Your task to perform on an android device: uninstall "TextNow: Call + Text Unlimited" Image 0: 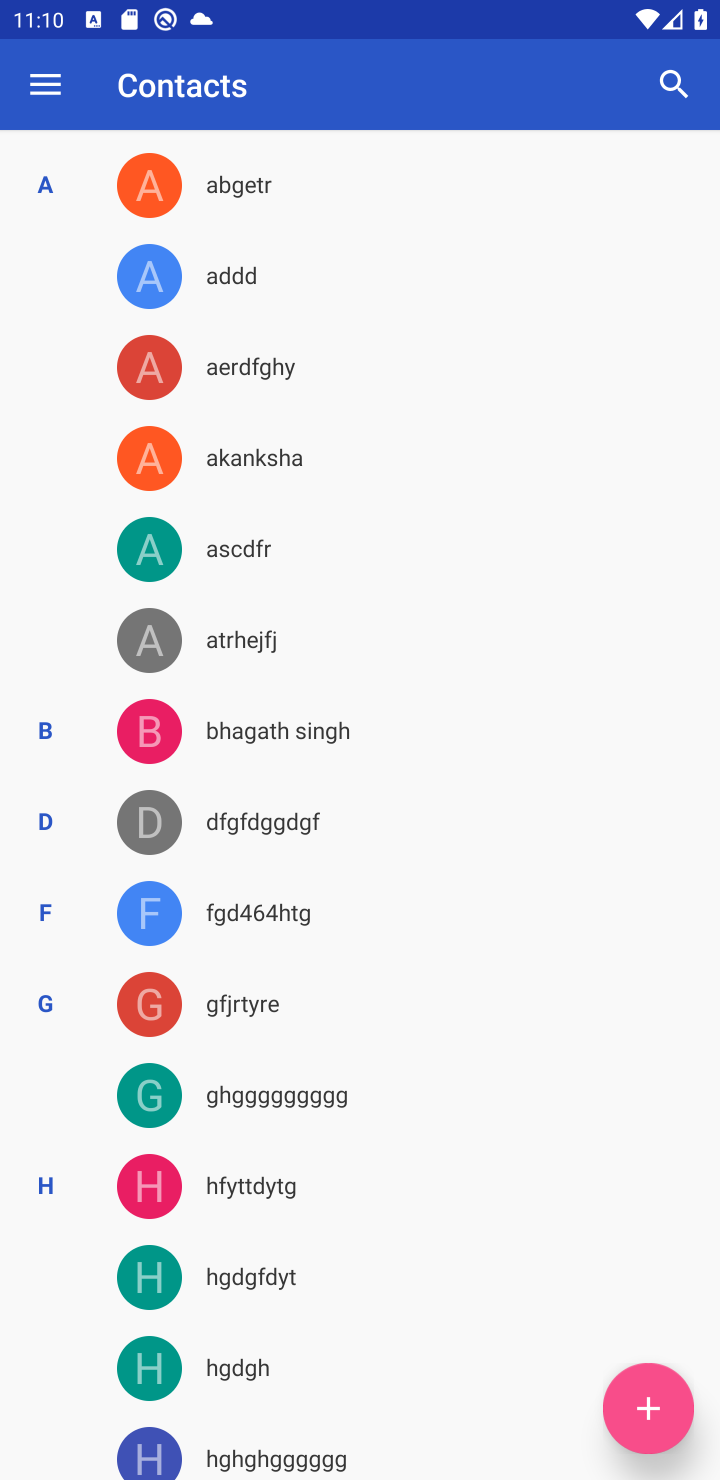
Step 0: press home button
Your task to perform on an android device: uninstall "TextNow: Call + Text Unlimited" Image 1: 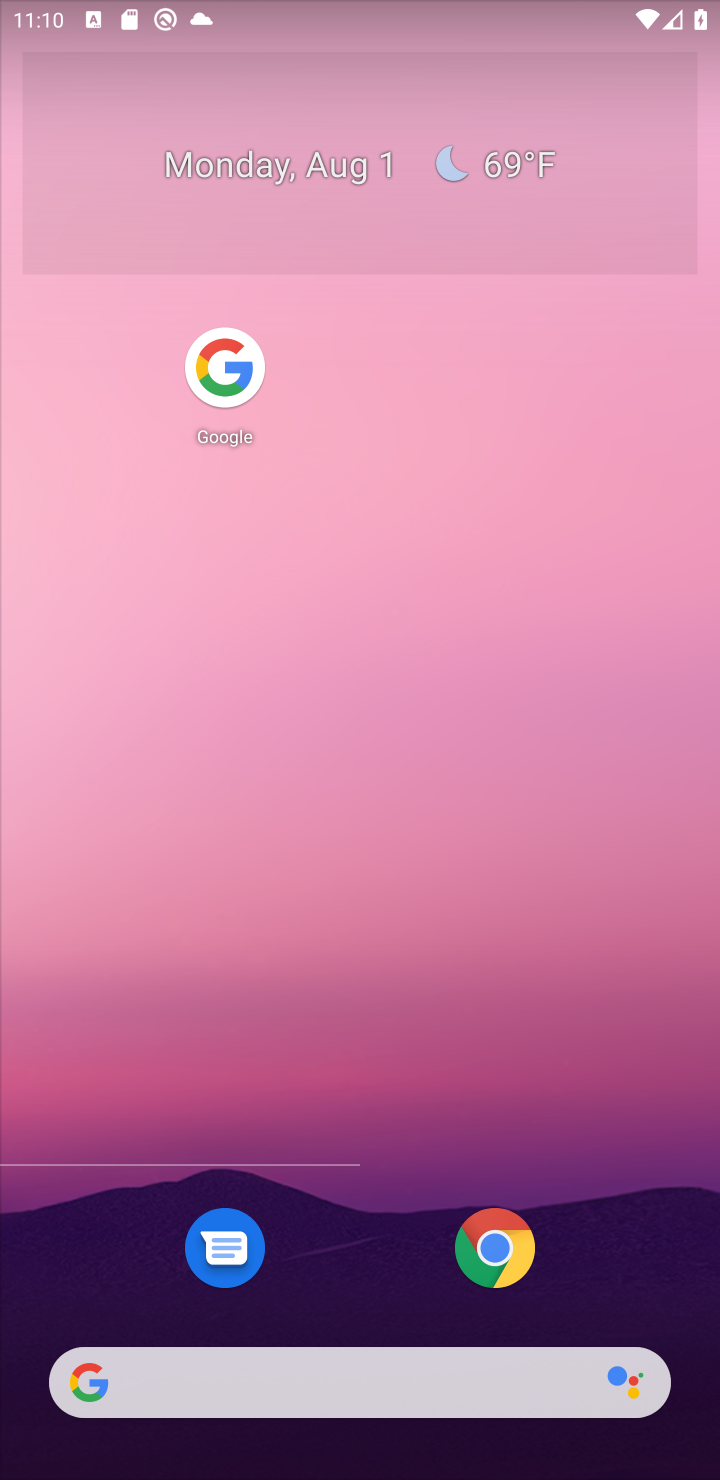
Step 1: drag from (370, 780) to (497, 0)
Your task to perform on an android device: uninstall "TextNow: Call + Text Unlimited" Image 2: 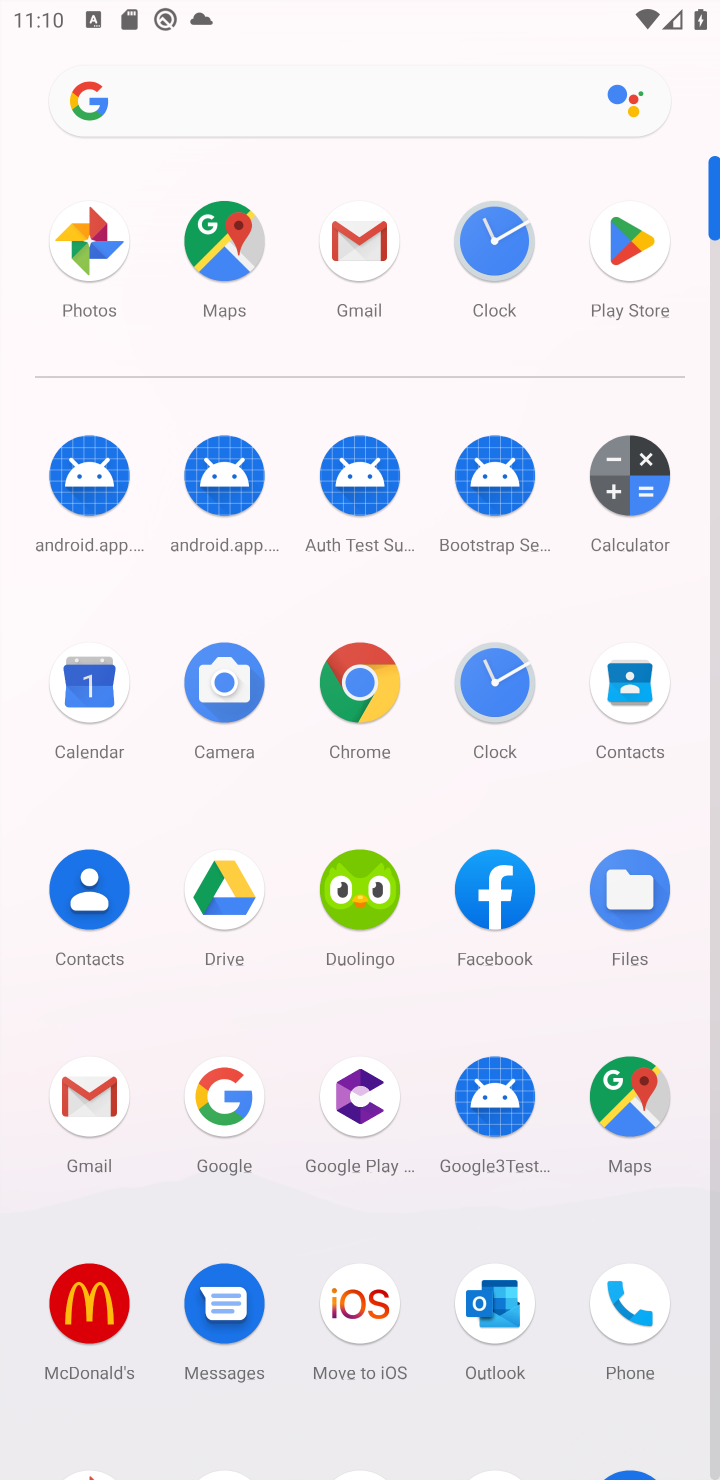
Step 2: drag from (283, 1219) to (298, 446)
Your task to perform on an android device: uninstall "TextNow: Call + Text Unlimited" Image 3: 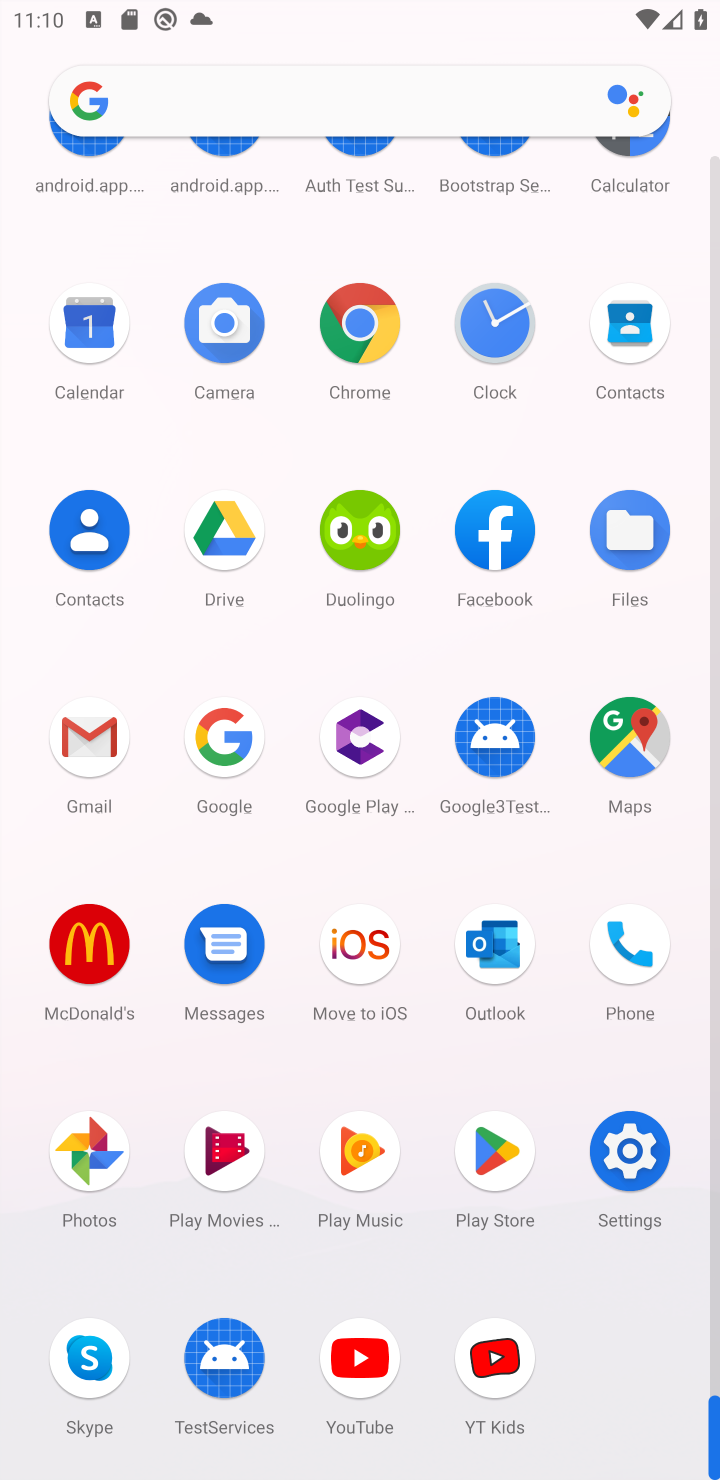
Step 3: click (489, 1154)
Your task to perform on an android device: uninstall "TextNow: Call + Text Unlimited" Image 4: 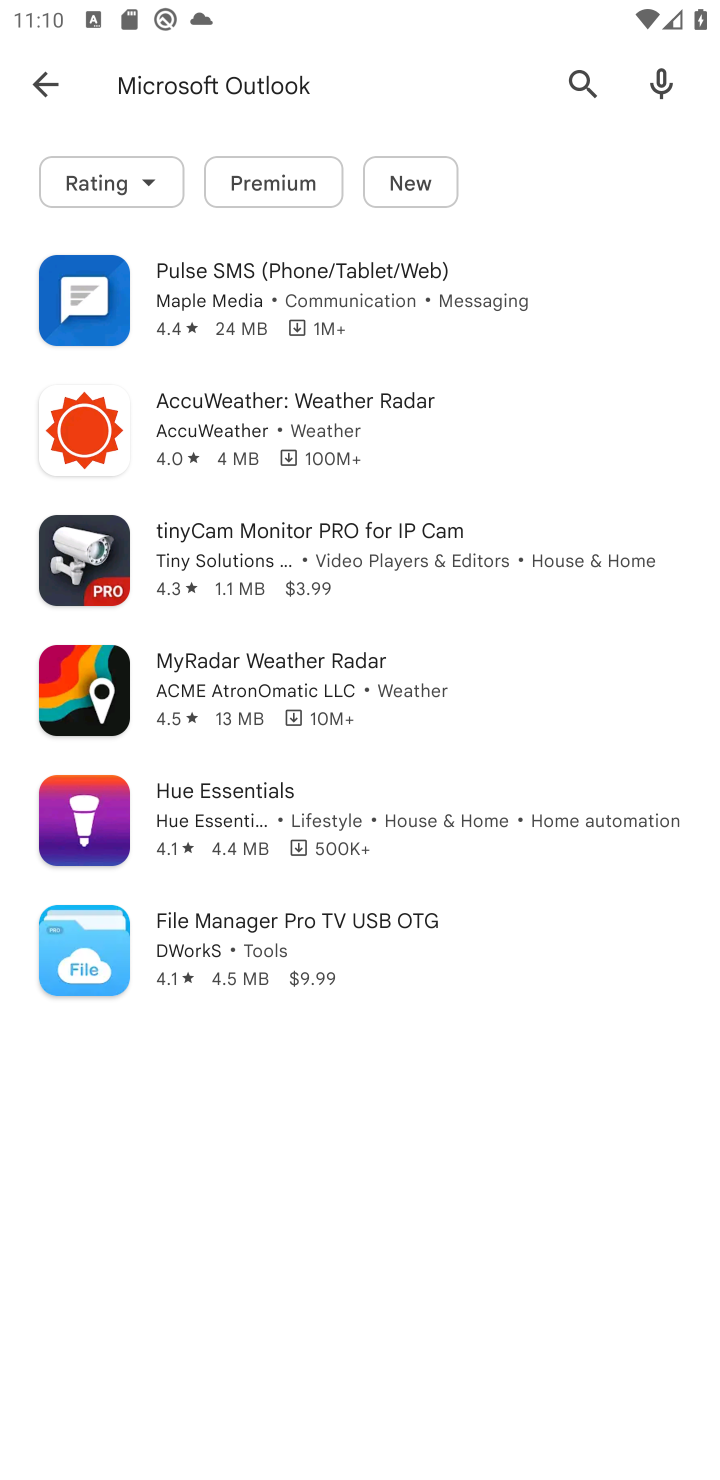
Step 4: click (391, 82)
Your task to perform on an android device: uninstall "TextNow: Call + Text Unlimited" Image 5: 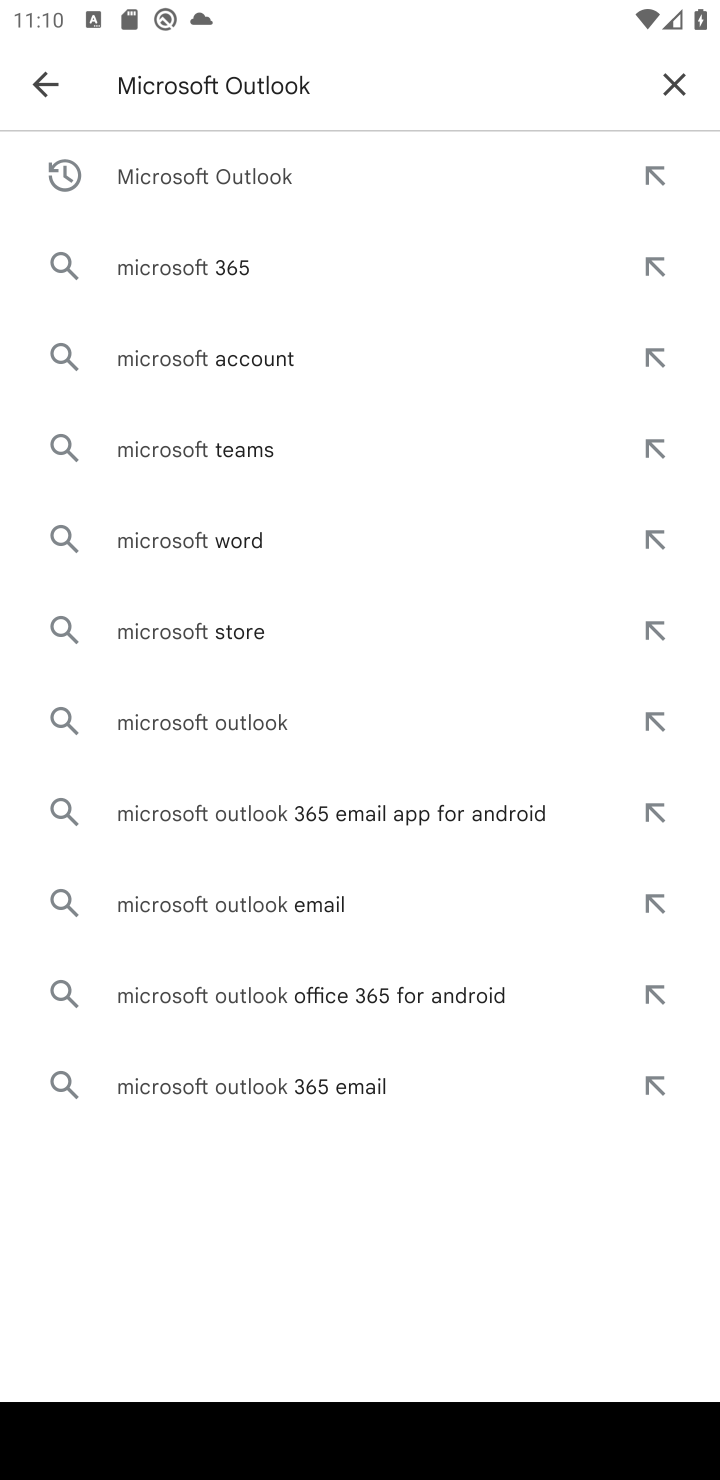
Step 5: click (667, 76)
Your task to perform on an android device: uninstall "TextNow: Call + Text Unlimited" Image 6: 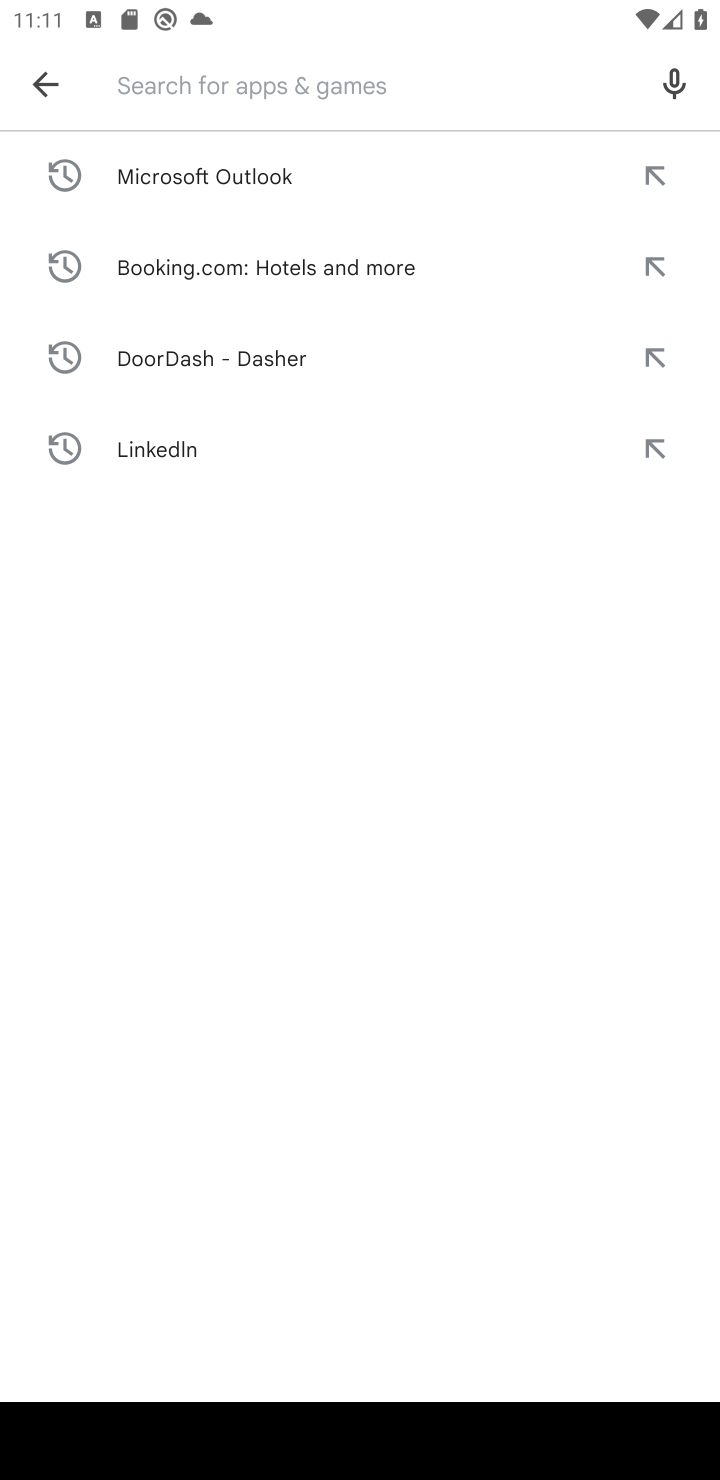
Step 6: type "TextNow: Call + Text Unlimited"
Your task to perform on an android device: uninstall "TextNow: Call + Text Unlimited" Image 7: 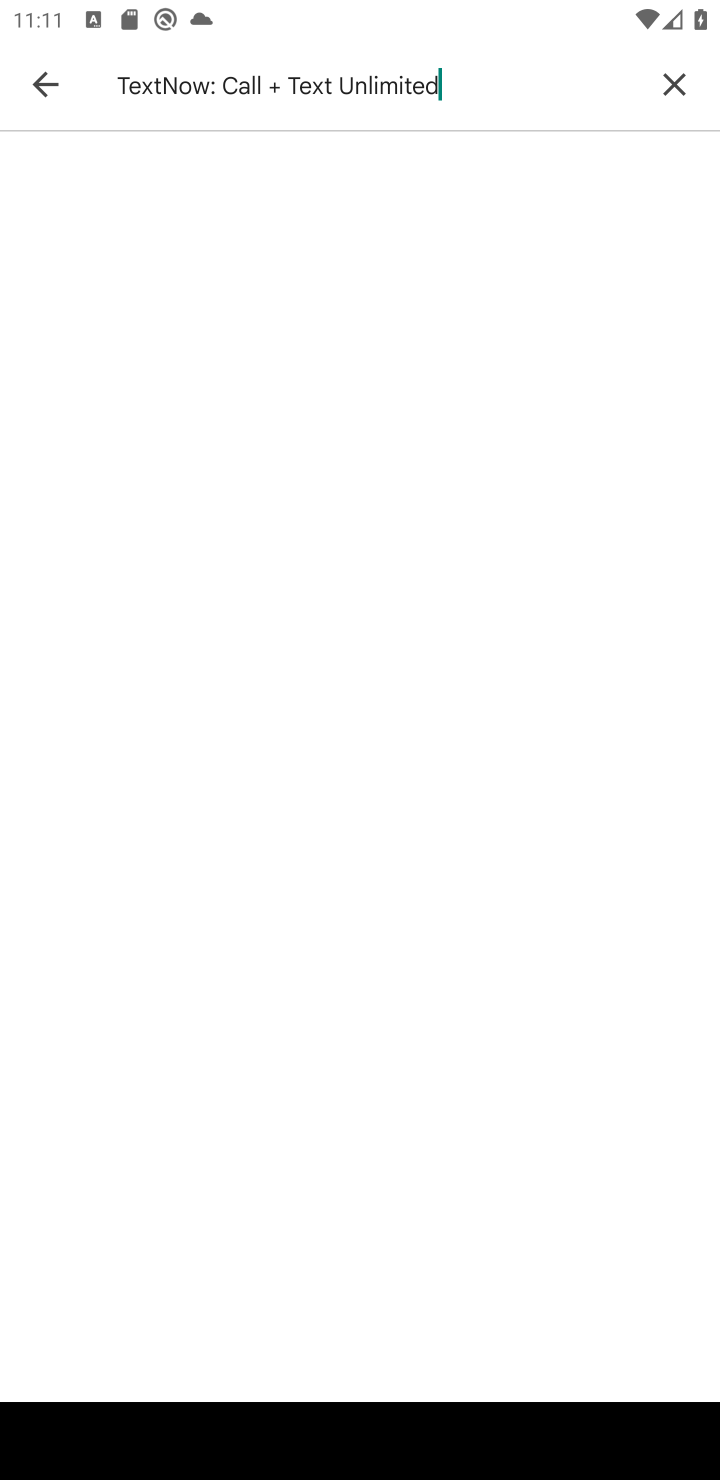
Step 7: press enter
Your task to perform on an android device: uninstall "TextNow: Call + Text Unlimited" Image 8: 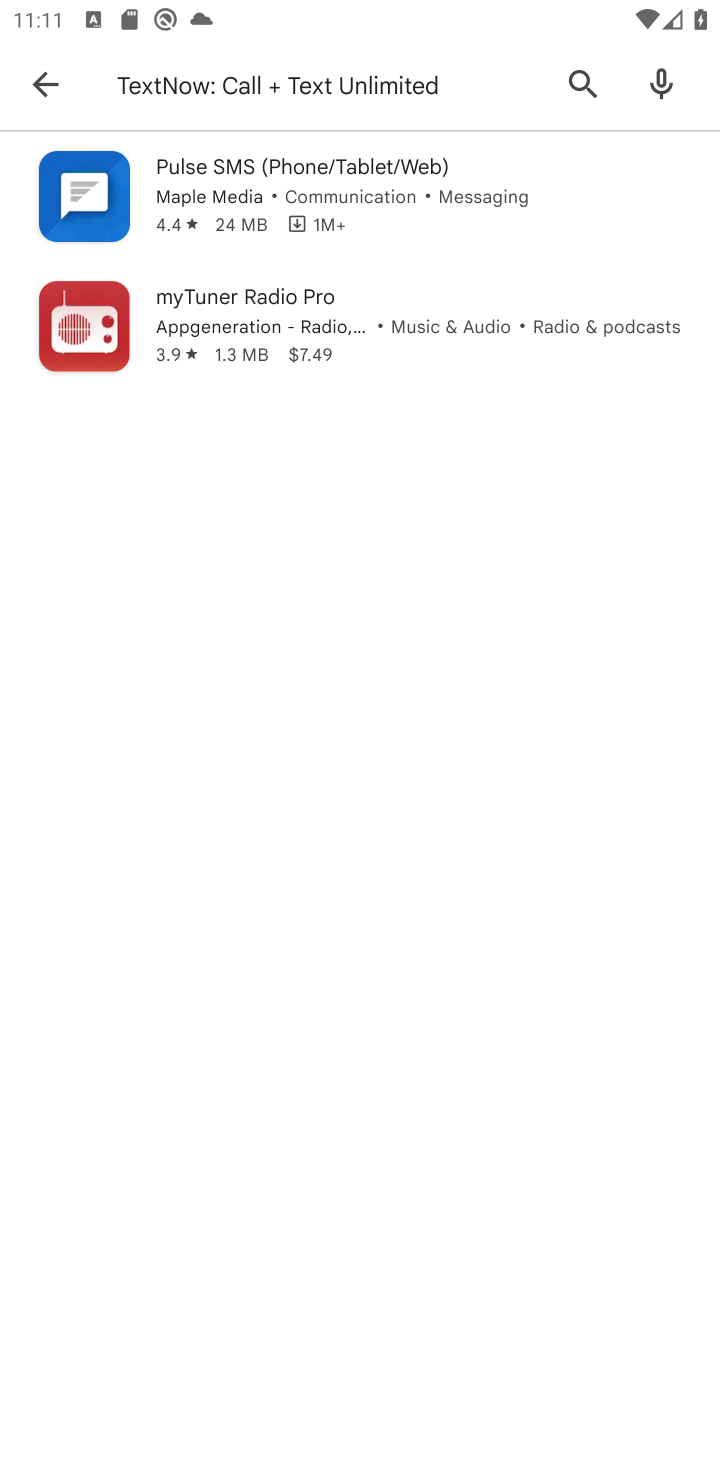
Step 8: task complete